Your task to perform on an android device: Open Android settings Image 0: 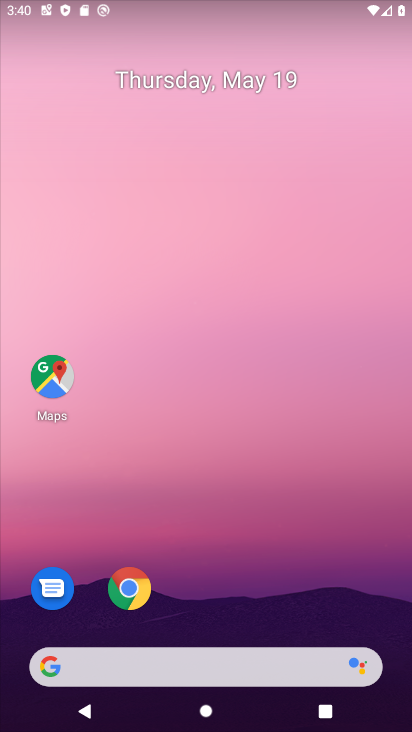
Step 0: drag from (214, 627) to (231, 202)
Your task to perform on an android device: Open Android settings Image 1: 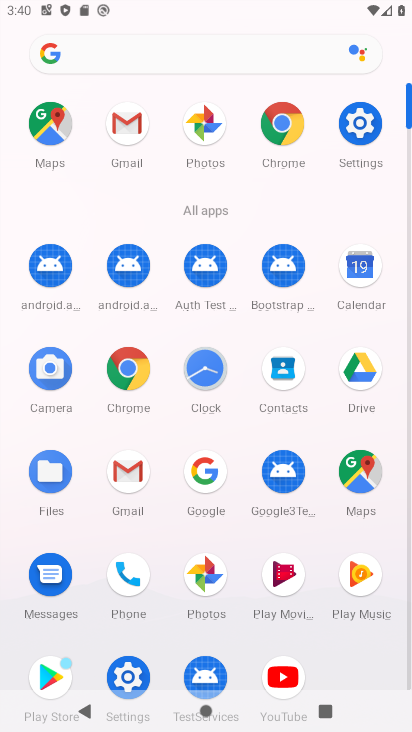
Step 1: click (365, 129)
Your task to perform on an android device: Open Android settings Image 2: 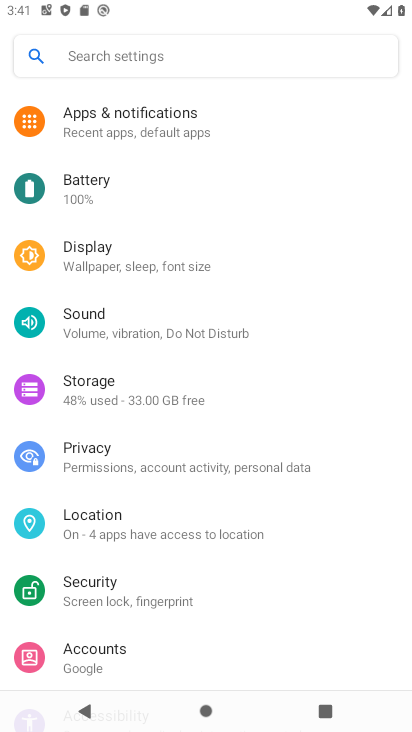
Step 2: task complete